Your task to perform on an android device: Search for "usb-c to usb-b" on bestbuy, select the first entry, add it to the cart, then select checkout. Image 0: 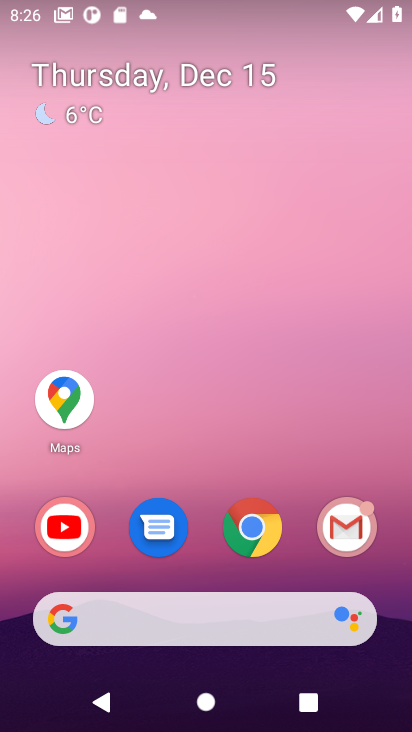
Step 0: click (270, 530)
Your task to perform on an android device: Search for "usb-c to usb-b" on bestbuy, select the first entry, add it to the cart, then select checkout. Image 1: 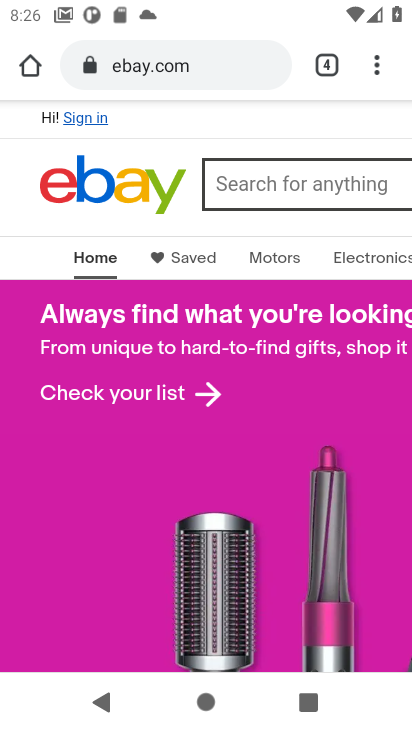
Step 1: click (197, 70)
Your task to perform on an android device: Search for "usb-c to usb-b" on bestbuy, select the first entry, add it to the cart, then select checkout. Image 2: 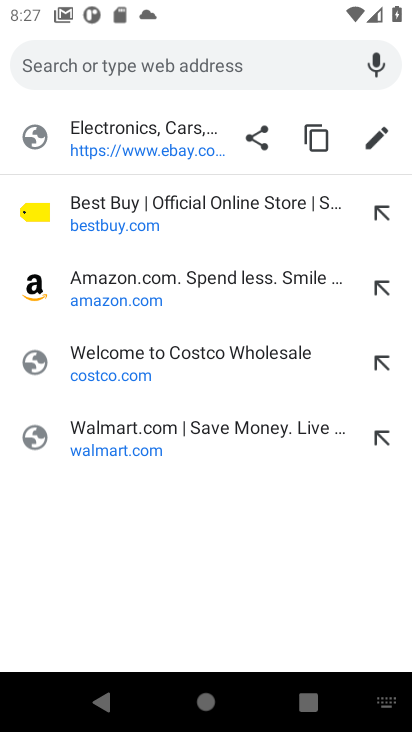
Step 2: type "bestbuy"
Your task to perform on an android device: Search for "usb-c to usb-b" on bestbuy, select the first entry, add it to the cart, then select checkout. Image 3: 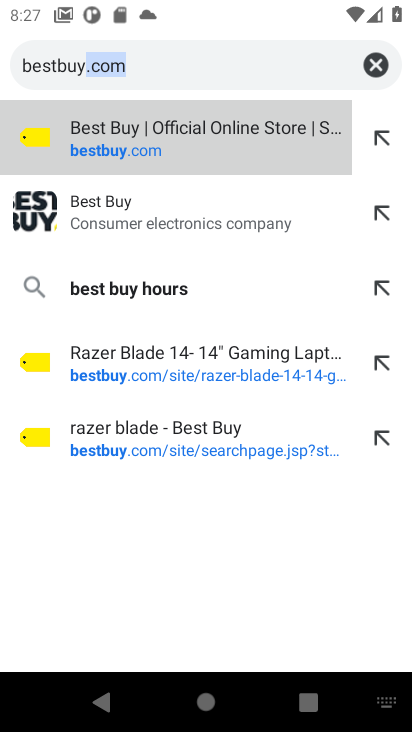
Step 3: click (98, 221)
Your task to perform on an android device: Search for "usb-c to usb-b" on bestbuy, select the first entry, add it to the cart, then select checkout. Image 4: 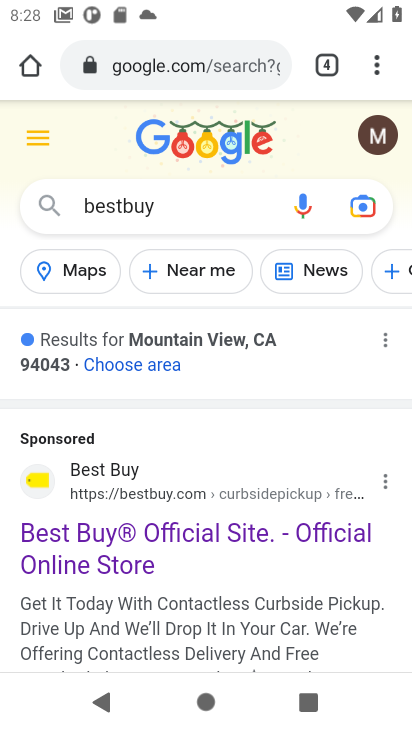
Step 4: click (73, 522)
Your task to perform on an android device: Search for "usb-c to usb-b" on bestbuy, select the first entry, add it to the cart, then select checkout. Image 5: 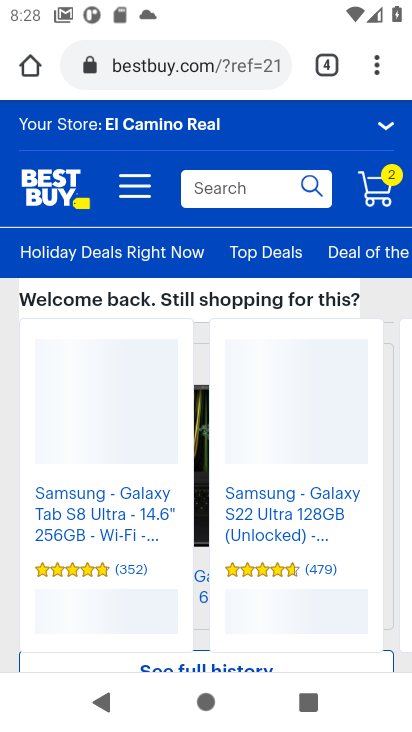
Step 5: click (224, 187)
Your task to perform on an android device: Search for "usb-c to usb-b" on bestbuy, select the first entry, add it to the cart, then select checkout. Image 6: 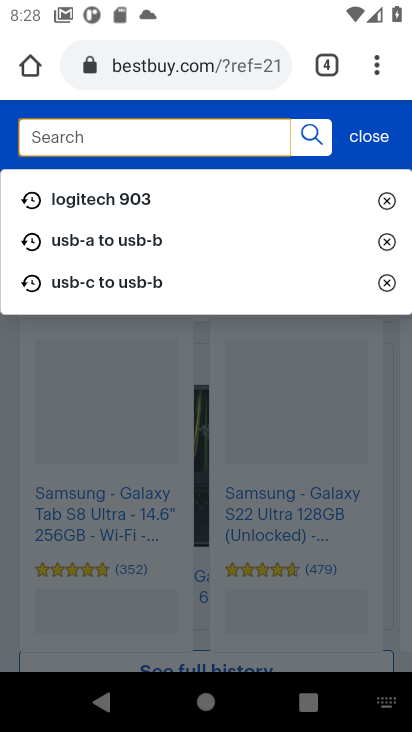
Step 6: type "usb-a to usb-b"
Your task to perform on an android device: Search for "usb-c to usb-b" on bestbuy, select the first entry, add it to the cart, then select checkout. Image 7: 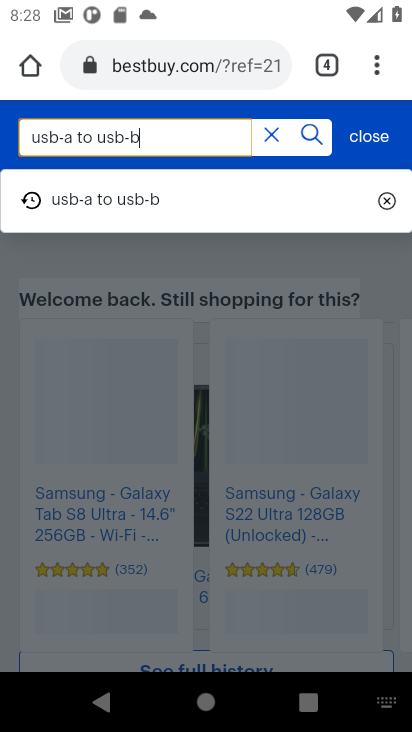
Step 7: click (320, 134)
Your task to perform on an android device: Search for "usb-c to usb-b" on bestbuy, select the first entry, add it to the cart, then select checkout. Image 8: 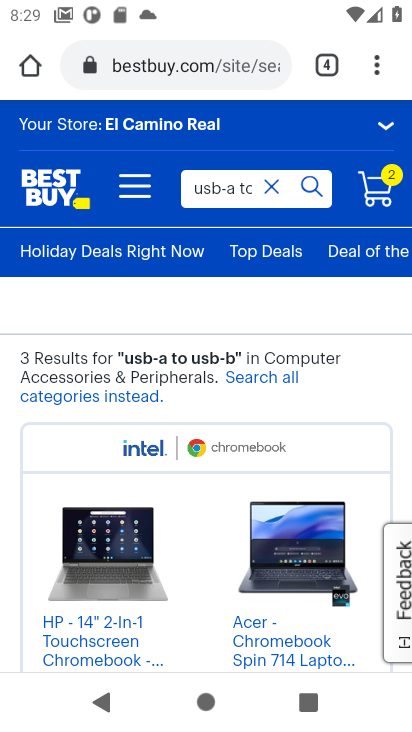
Step 8: task complete